Your task to perform on an android device: check android version Image 0: 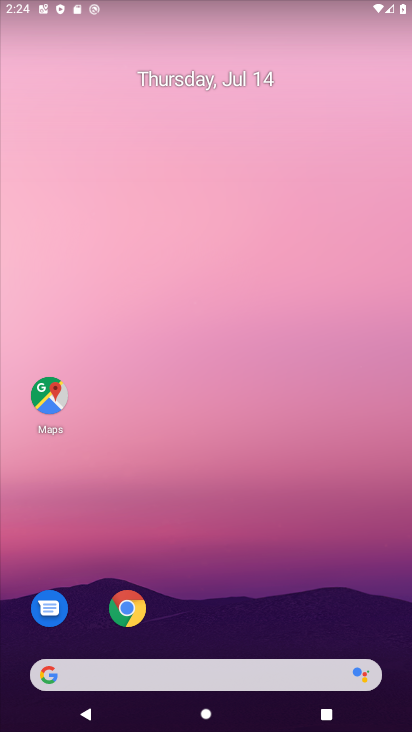
Step 0: drag from (199, 611) to (256, 13)
Your task to perform on an android device: check android version Image 1: 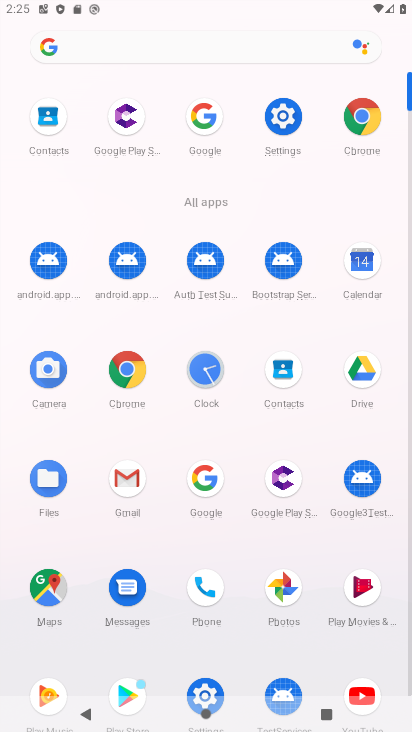
Step 1: click (277, 112)
Your task to perform on an android device: check android version Image 2: 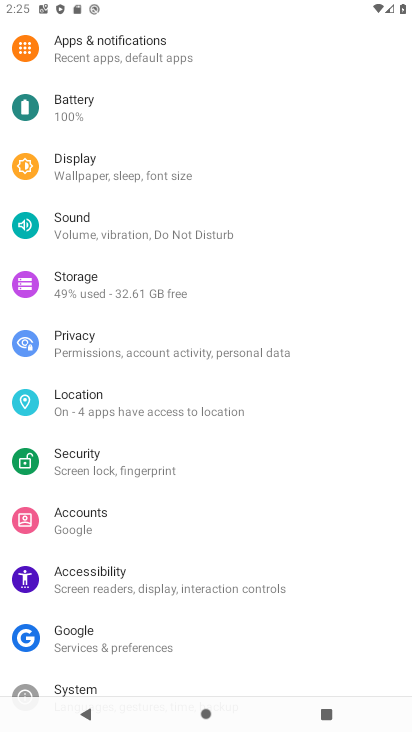
Step 2: drag from (263, 651) to (282, 78)
Your task to perform on an android device: check android version Image 3: 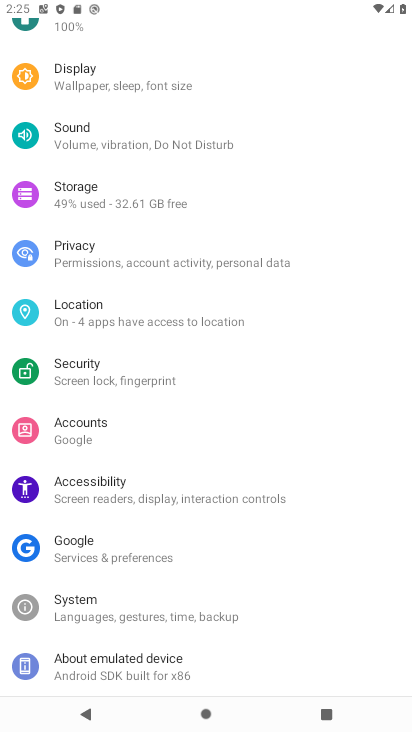
Step 3: click (105, 670)
Your task to perform on an android device: check android version Image 4: 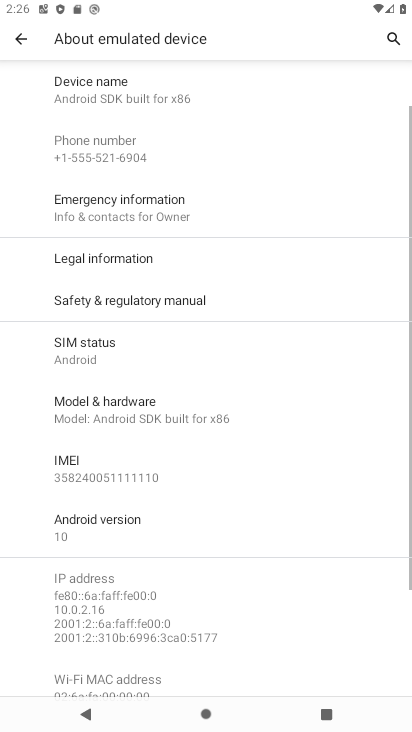
Step 4: click (119, 521)
Your task to perform on an android device: check android version Image 5: 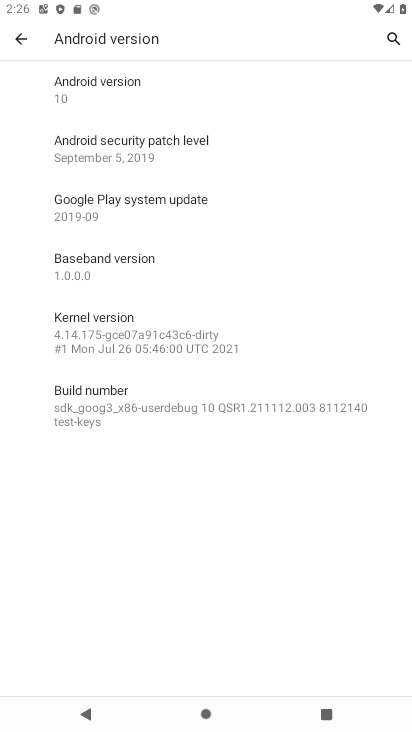
Step 5: task complete